Your task to perform on an android device: Open maps Image 0: 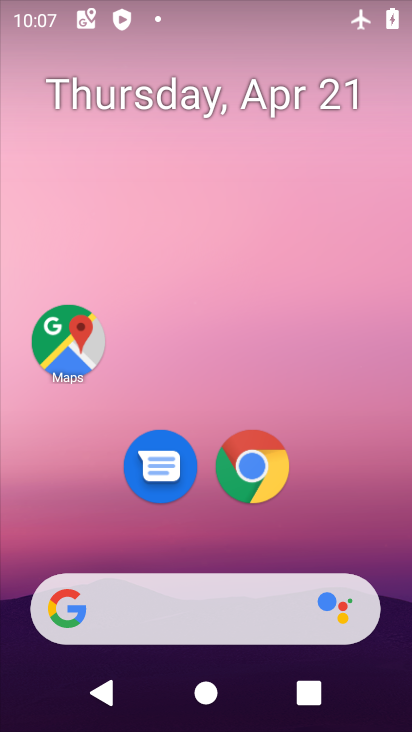
Step 0: drag from (357, 519) to (334, 108)
Your task to perform on an android device: Open maps Image 1: 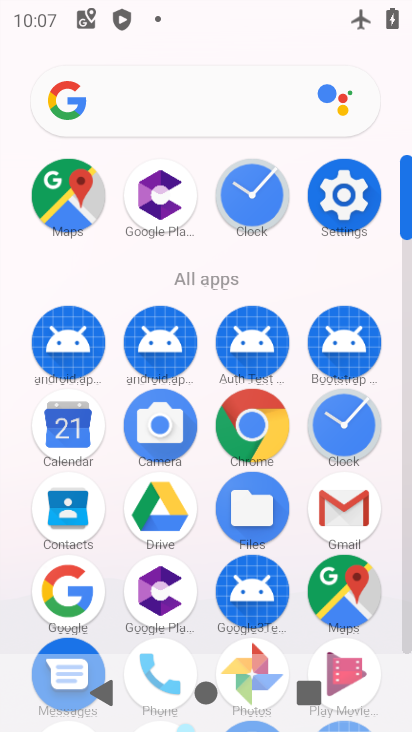
Step 1: click (346, 580)
Your task to perform on an android device: Open maps Image 2: 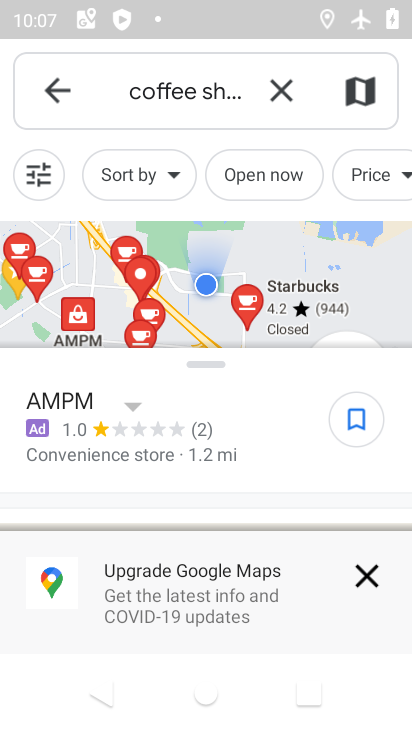
Step 2: task complete